Your task to perform on an android device: Toggle the flashlight Image 0: 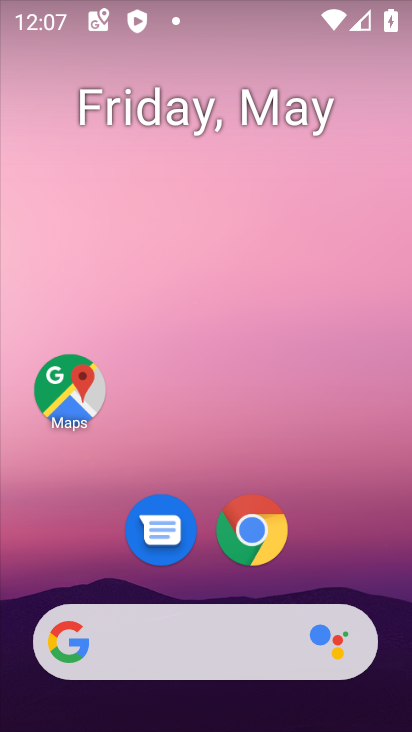
Step 0: drag from (333, 565) to (266, 191)
Your task to perform on an android device: Toggle the flashlight Image 1: 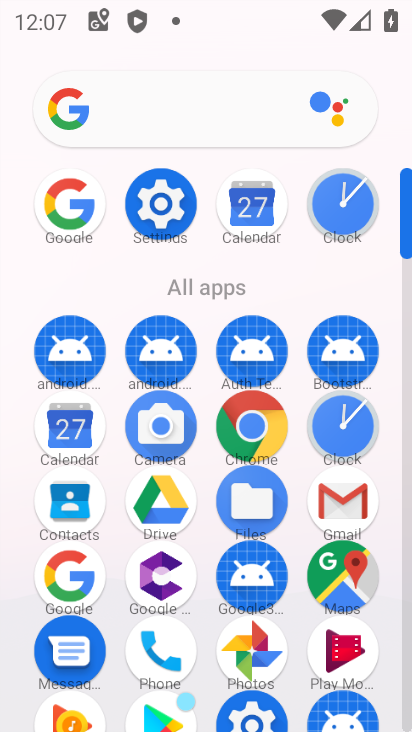
Step 1: click (160, 201)
Your task to perform on an android device: Toggle the flashlight Image 2: 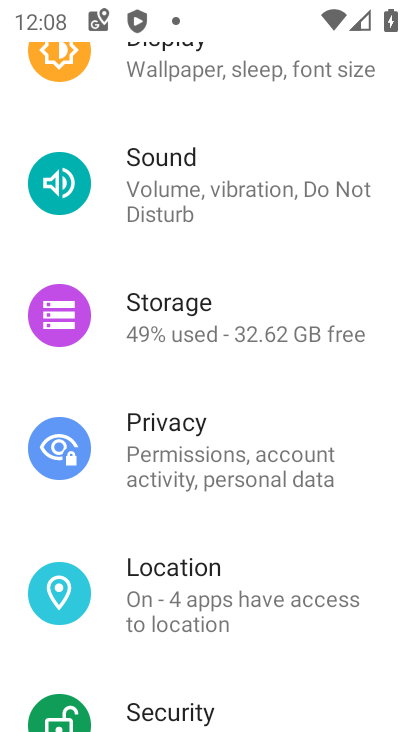
Step 2: drag from (167, 523) to (211, 341)
Your task to perform on an android device: Toggle the flashlight Image 3: 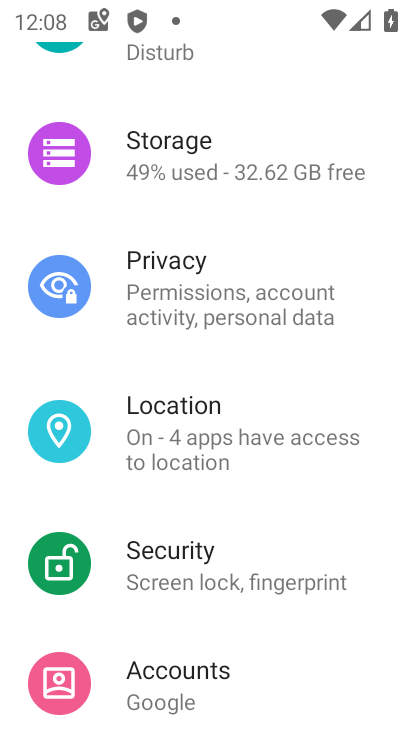
Step 3: drag from (186, 510) to (247, 389)
Your task to perform on an android device: Toggle the flashlight Image 4: 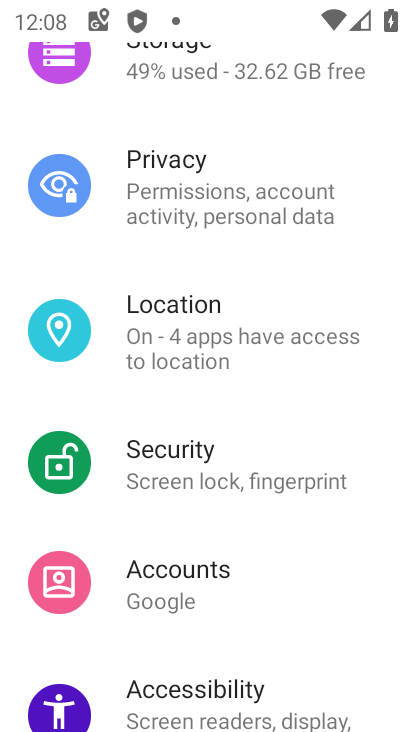
Step 4: drag from (157, 624) to (257, 486)
Your task to perform on an android device: Toggle the flashlight Image 5: 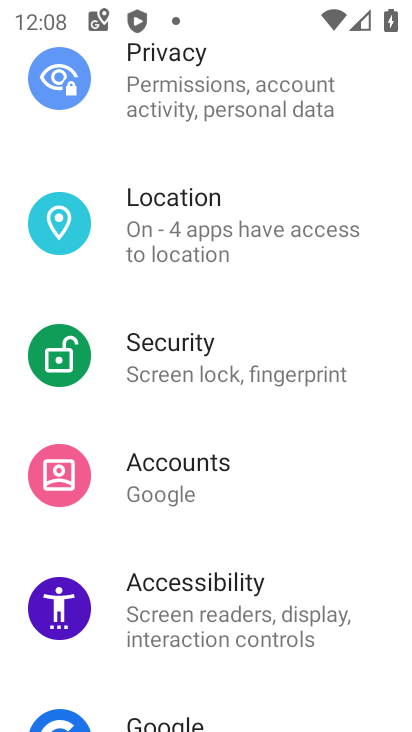
Step 5: drag from (219, 329) to (231, 526)
Your task to perform on an android device: Toggle the flashlight Image 6: 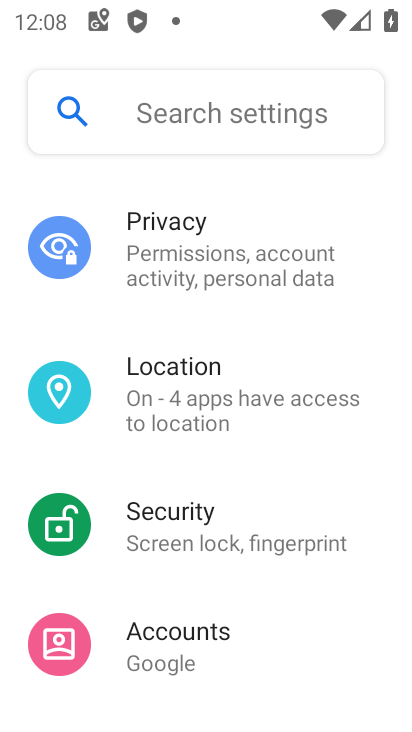
Step 6: drag from (246, 220) to (238, 450)
Your task to perform on an android device: Toggle the flashlight Image 7: 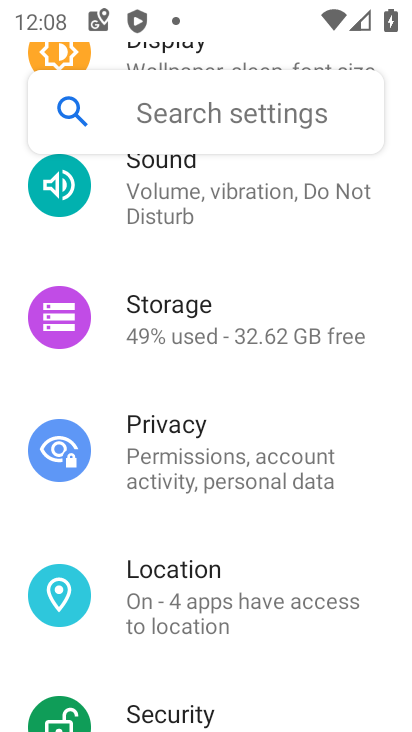
Step 7: drag from (237, 273) to (241, 471)
Your task to perform on an android device: Toggle the flashlight Image 8: 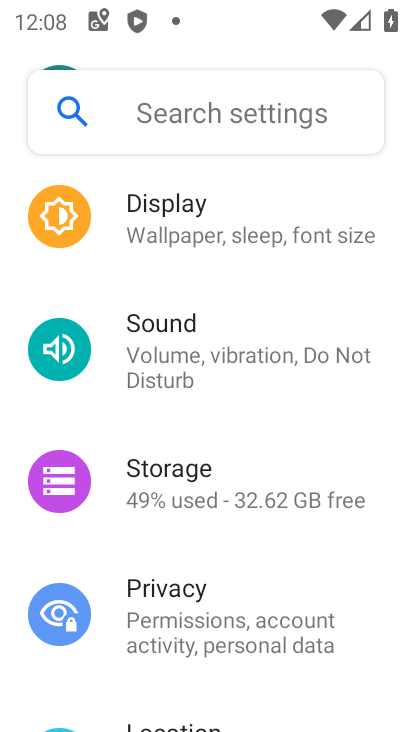
Step 8: drag from (234, 519) to (257, 332)
Your task to perform on an android device: Toggle the flashlight Image 9: 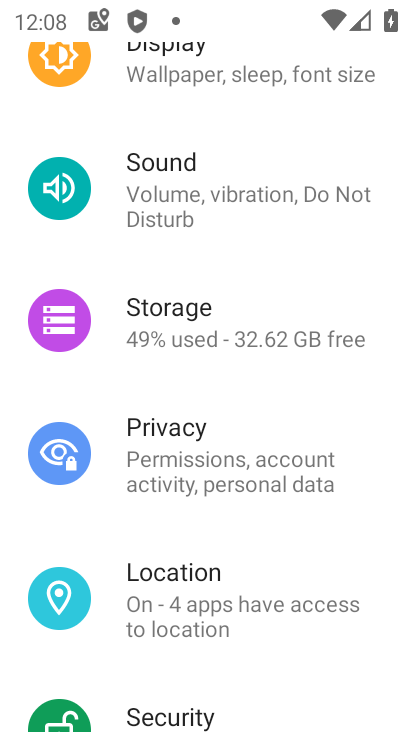
Step 9: drag from (263, 132) to (284, 325)
Your task to perform on an android device: Toggle the flashlight Image 10: 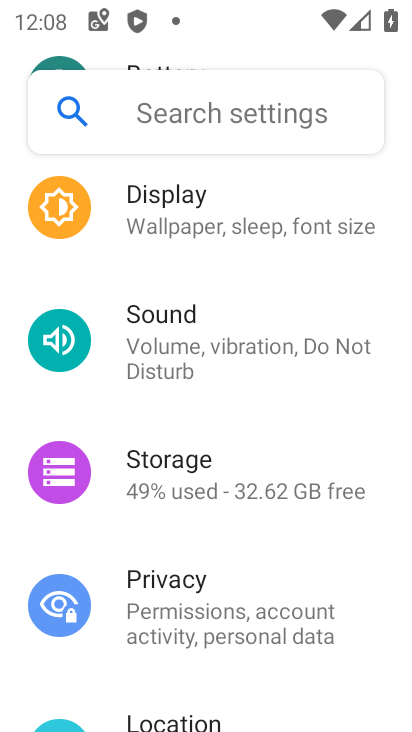
Step 10: click (247, 237)
Your task to perform on an android device: Toggle the flashlight Image 11: 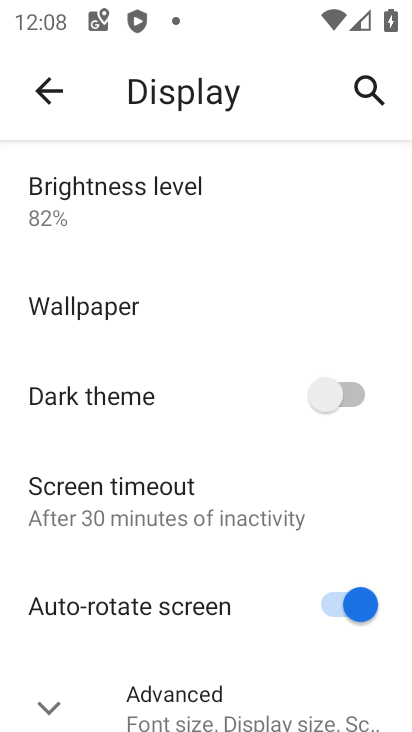
Step 11: drag from (88, 533) to (170, 408)
Your task to perform on an android device: Toggle the flashlight Image 12: 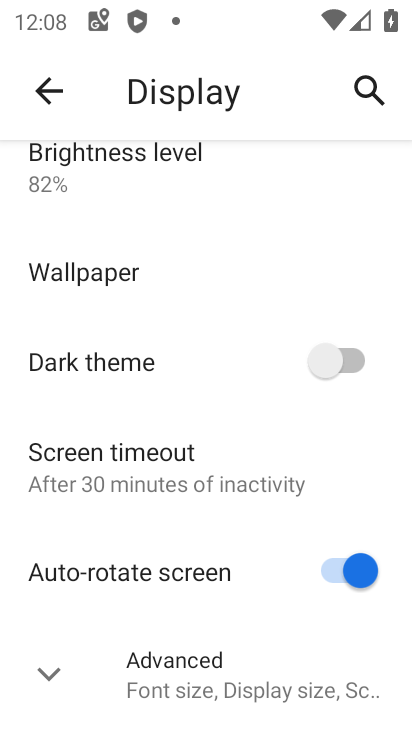
Step 12: click (205, 471)
Your task to perform on an android device: Toggle the flashlight Image 13: 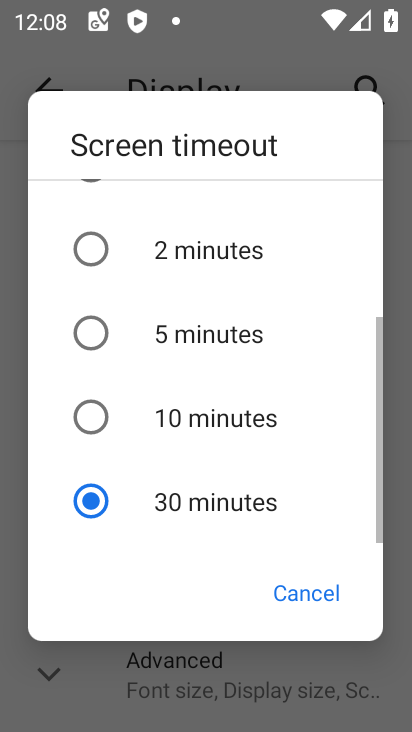
Step 13: click (313, 589)
Your task to perform on an android device: Toggle the flashlight Image 14: 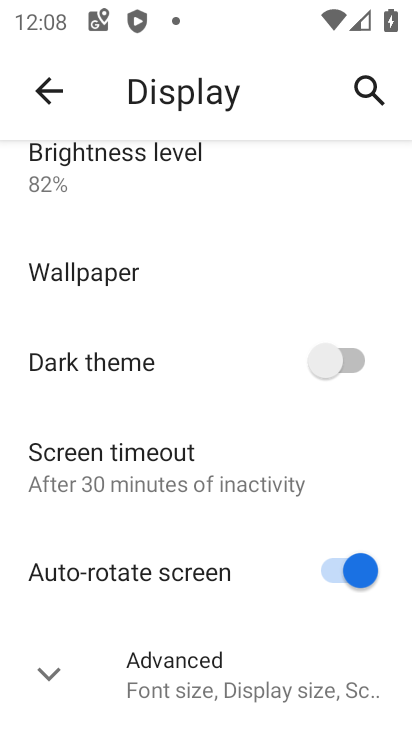
Step 14: drag from (234, 616) to (271, 470)
Your task to perform on an android device: Toggle the flashlight Image 15: 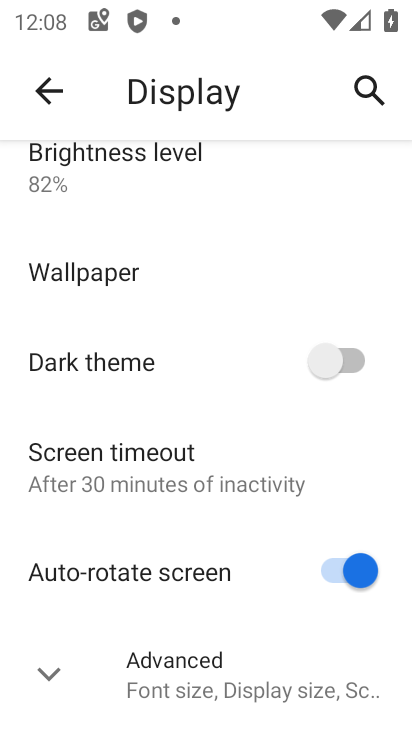
Step 15: click (226, 680)
Your task to perform on an android device: Toggle the flashlight Image 16: 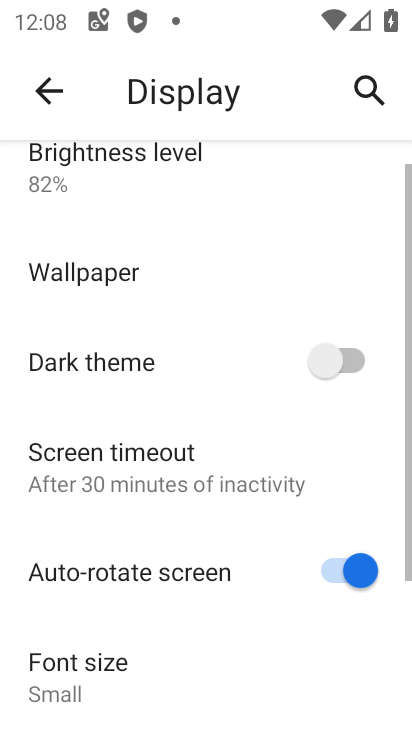
Step 16: drag from (200, 647) to (214, 469)
Your task to perform on an android device: Toggle the flashlight Image 17: 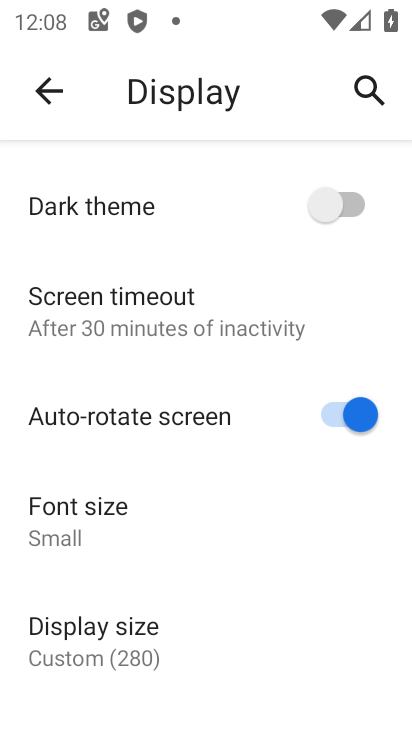
Step 17: drag from (143, 603) to (115, 453)
Your task to perform on an android device: Toggle the flashlight Image 18: 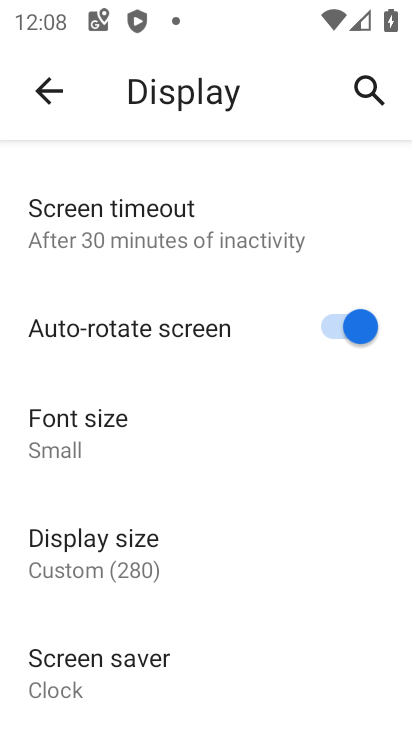
Step 18: press back button
Your task to perform on an android device: Toggle the flashlight Image 19: 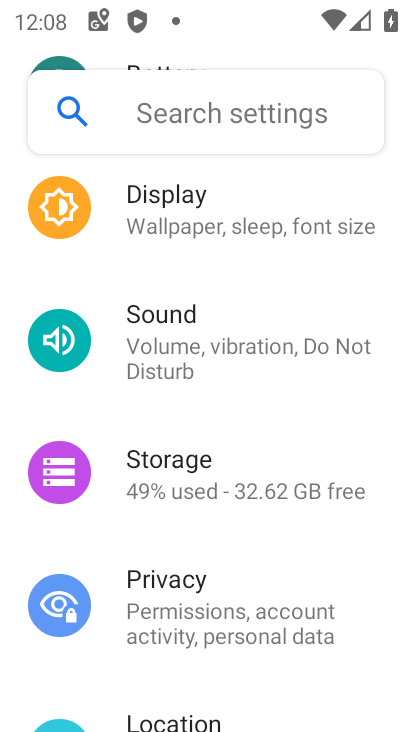
Step 19: drag from (203, 544) to (262, 391)
Your task to perform on an android device: Toggle the flashlight Image 20: 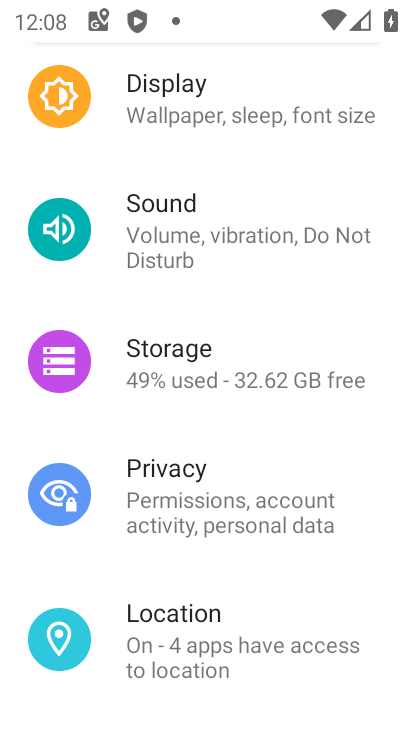
Step 20: drag from (235, 588) to (255, 453)
Your task to perform on an android device: Toggle the flashlight Image 21: 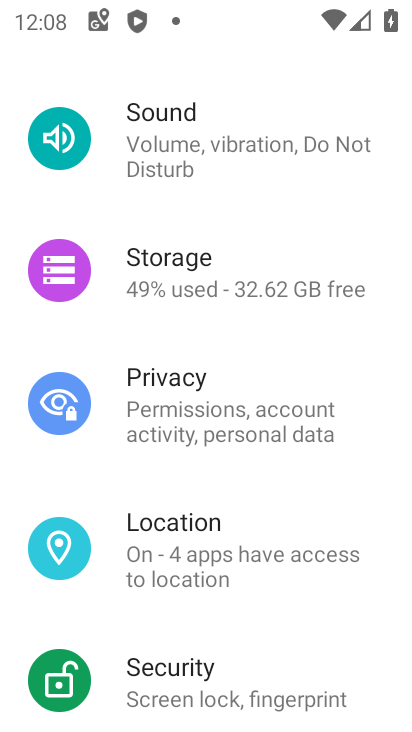
Step 21: drag from (223, 644) to (282, 510)
Your task to perform on an android device: Toggle the flashlight Image 22: 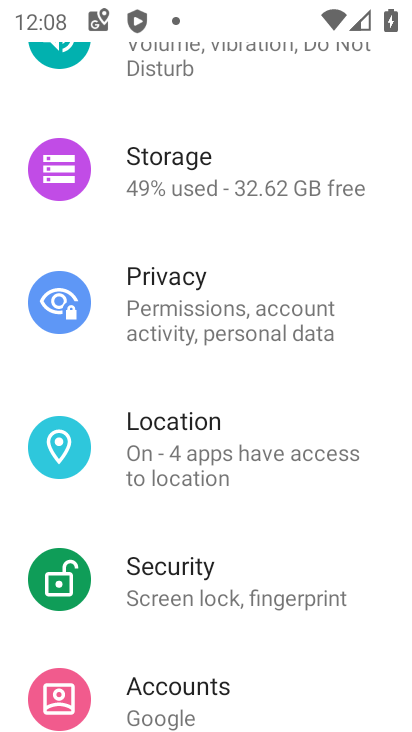
Step 22: drag from (227, 660) to (258, 530)
Your task to perform on an android device: Toggle the flashlight Image 23: 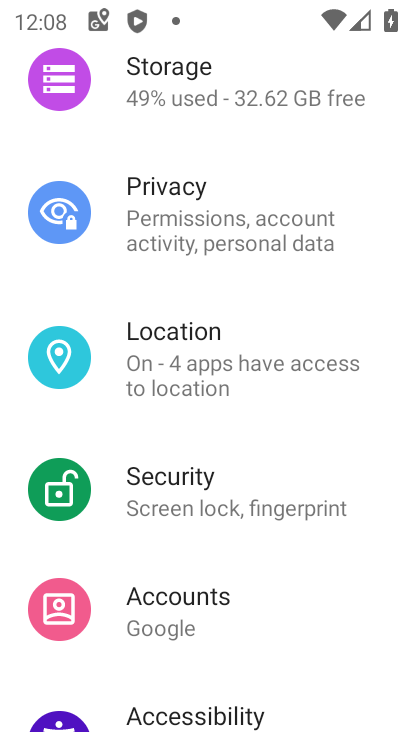
Step 23: drag from (196, 659) to (255, 503)
Your task to perform on an android device: Toggle the flashlight Image 24: 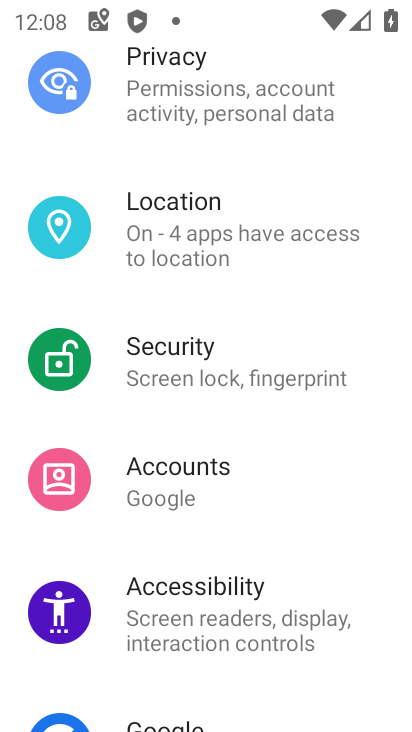
Step 24: click (200, 626)
Your task to perform on an android device: Toggle the flashlight Image 25: 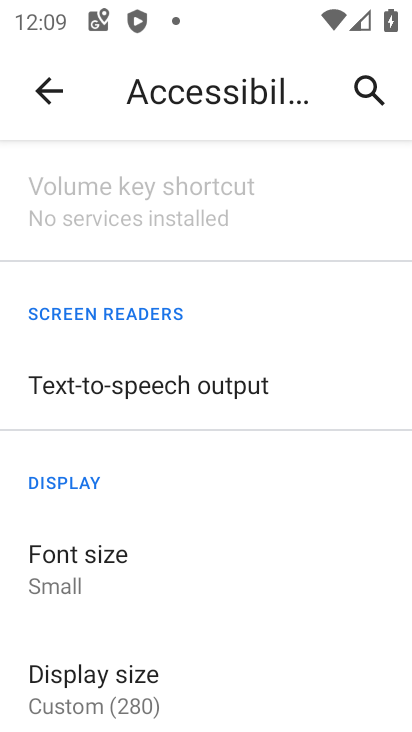
Step 25: task complete